Your task to perform on an android device: What is the recent news? Image 0: 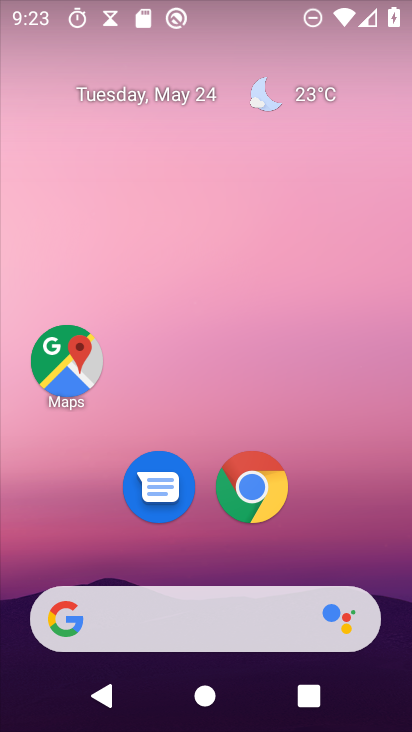
Step 0: click (192, 614)
Your task to perform on an android device: What is the recent news? Image 1: 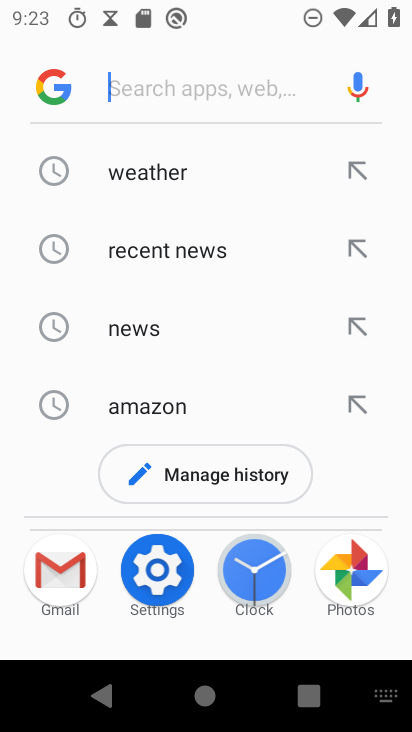
Step 1: click (109, 321)
Your task to perform on an android device: What is the recent news? Image 2: 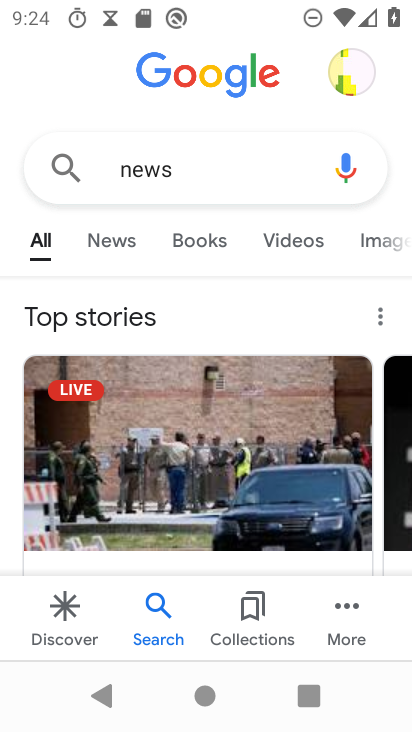
Step 2: task complete